Your task to perform on an android device: Open Google Chrome Image 0: 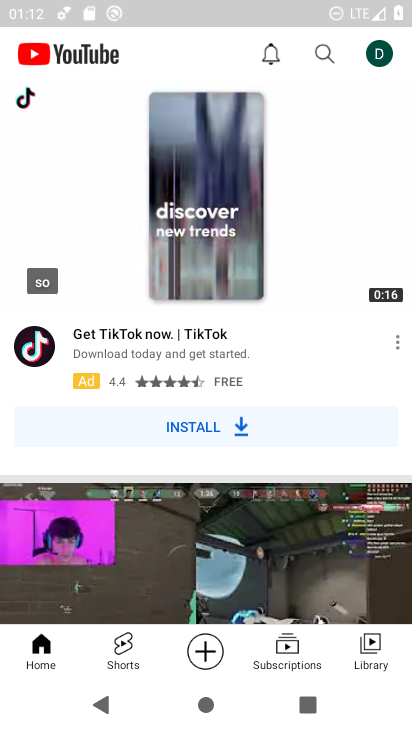
Step 0: press home button
Your task to perform on an android device: Open Google Chrome Image 1: 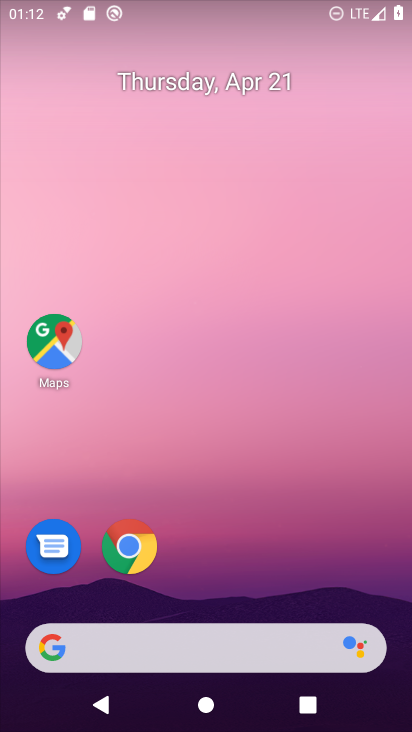
Step 1: click (139, 550)
Your task to perform on an android device: Open Google Chrome Image 2: 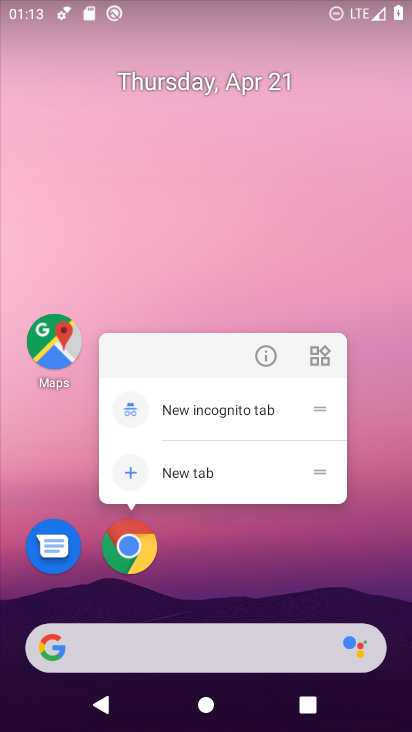
Step 2: click (135, 541)
Your task to perform on an android device: Open Google Chrome Image 3: 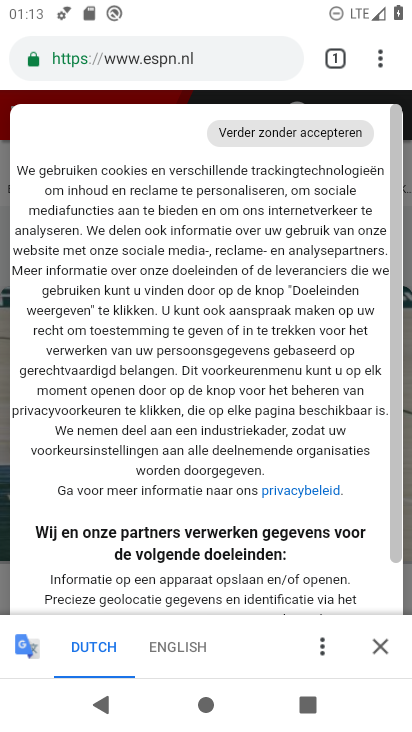
Step 3: task complete